Your task to perform on an android device: make emails show in primary in the gmail app Image 0: 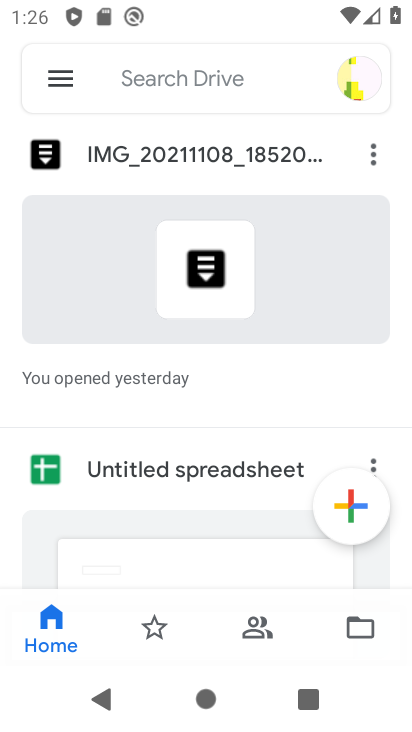
Step 0: press home button
Your task to perform on an android device: make emails show in primary in the gmail app Image 1: 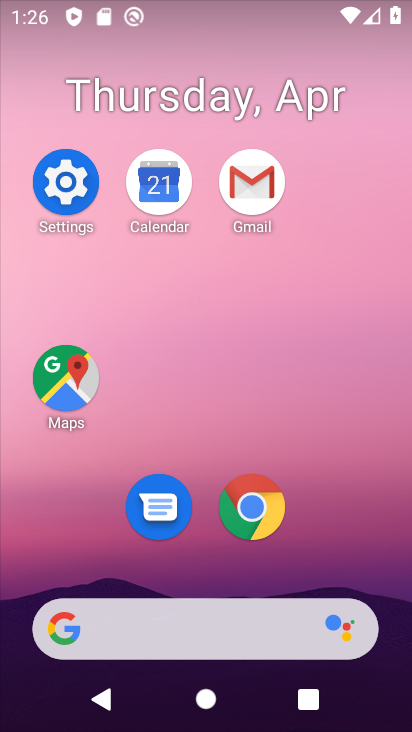
Step 1: click (251, 186)
Your task to perform on an android device: make emails show in primary in the gmail app Image 2: 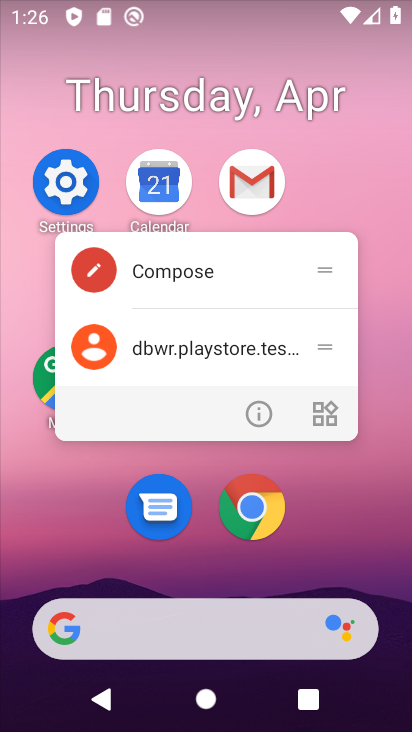
Step 2: click (251, 186)
Your task to perform on an android device: make emails show in primary in the gmail app Image 3: 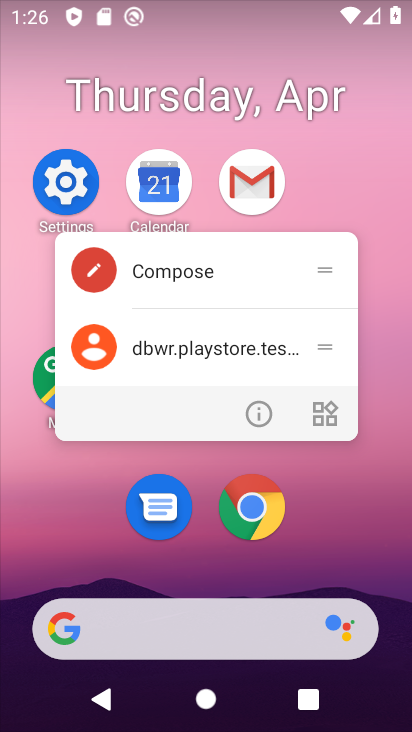
Step 3: click (251, 186)
Your task to perform on an android device: make emails show in primary in the gmail app Image 4: 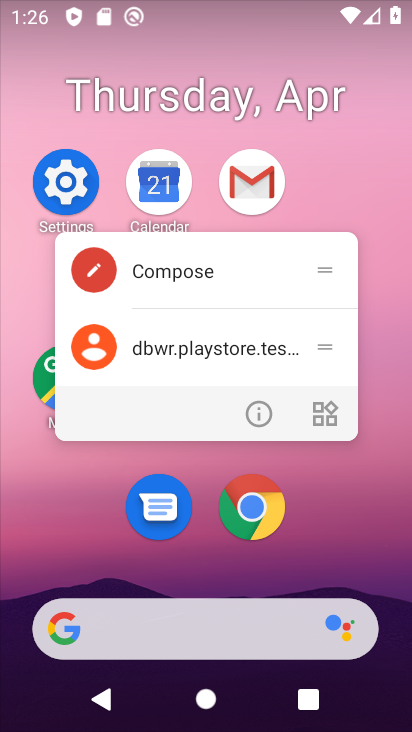
Step 4: click (251, 186)
Your task to perform on an android device: make emails show in primary in the gmail app Image 5: 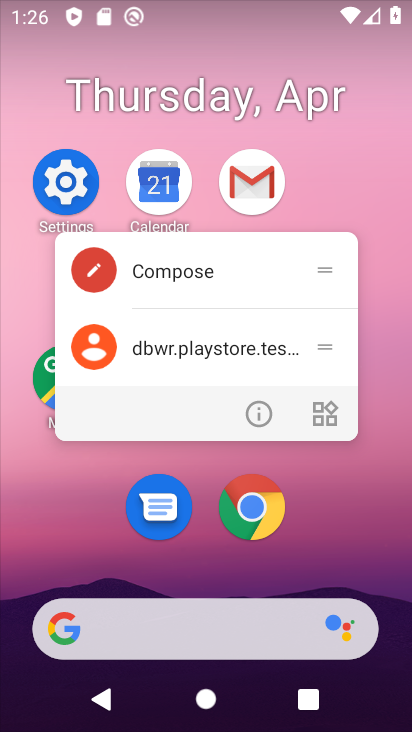
Step 5: click (251, 186)
Your task to perform on an android device: make emails show in primary in the gmail app Image 6: 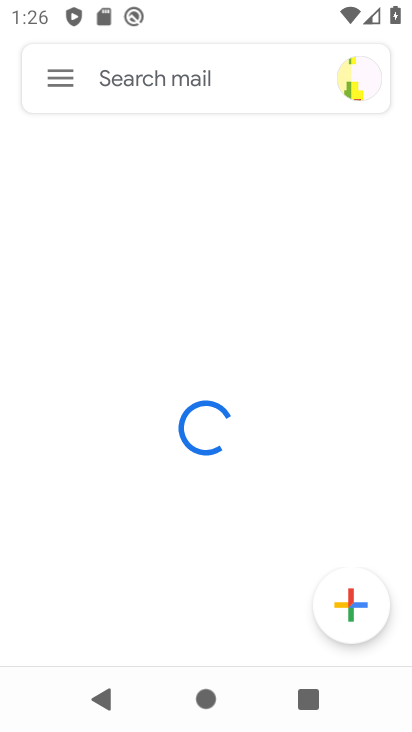
Step 6: click (54, 70)
Your task to perform on an android device: make emails show in primary in the gmail app Image 7: 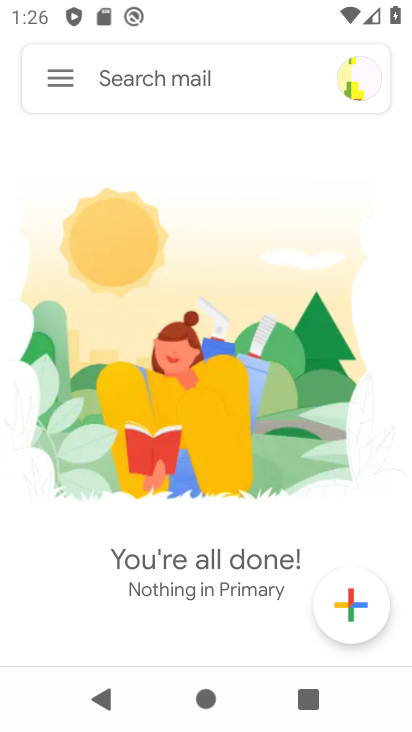
Step 7: click (57, 89)
Your task to perform on an android device: make emails show in primary in the gmail app Image 8: 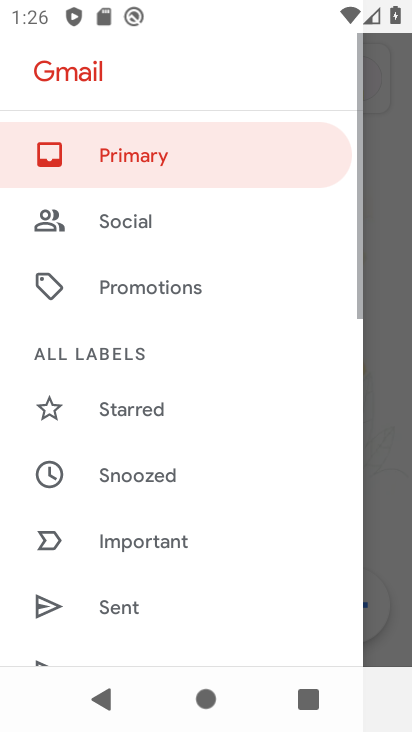
Step 8: drag from (184, 578) to (209, 99)
Your task to perform on an android device: make emails show in primary in the gmail app Image 9: 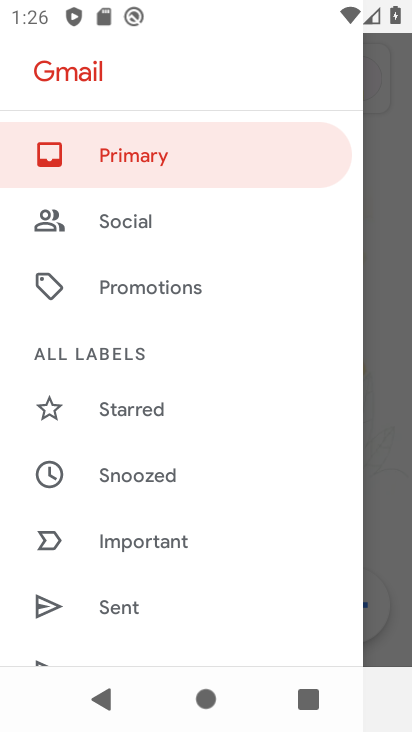
Step 9: drag from (237, 569) to (269, 128)
Your task to perform on an android device: make emails show in primary in the gmail app Image 10: 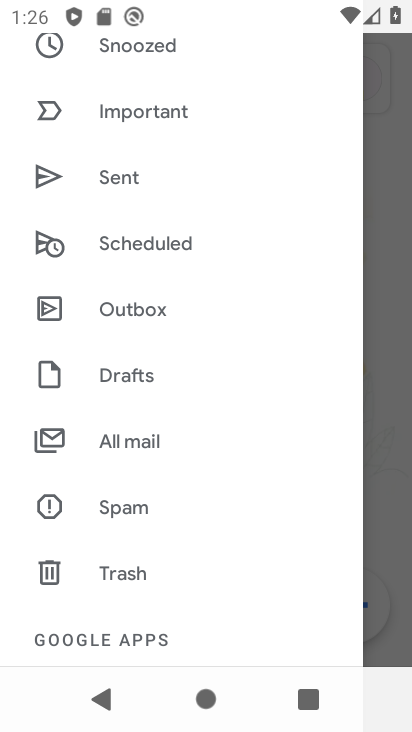
Step 10: drag from (161, 504) to (170, 157)
Your task to perform on an android device: make emails show in primary in the gmail app Image 11: 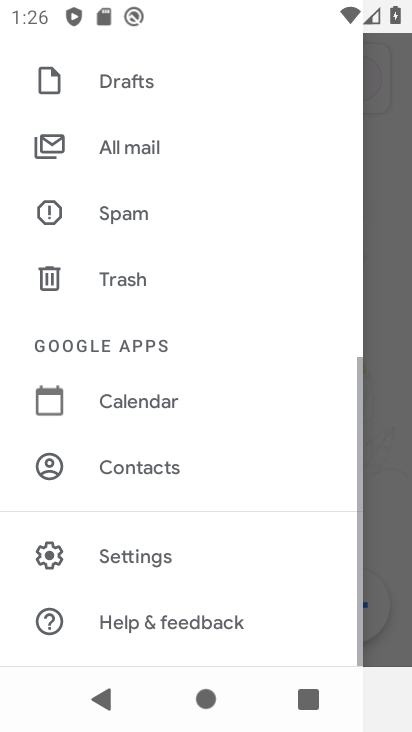
Step 11: click (181, 530)
Your task to perform on an android device: make emails show in primary in the gmail app Image 12: 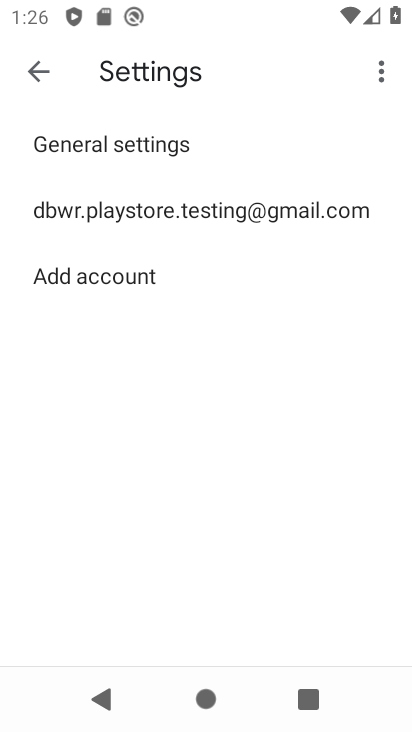
Step 12: click (188, 222)
Your task to perform on an android device: make emails show in primary in the gmail app Image 13: 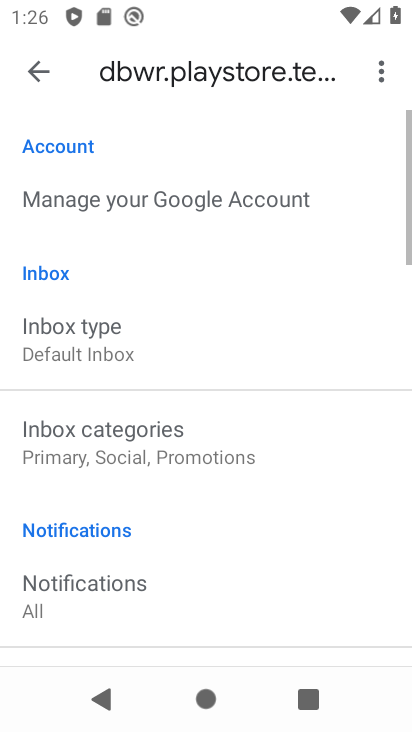
Step 13: click (174, 428)
Your task to perform on an android device: make emails show in primary in the gmail app Image 14: 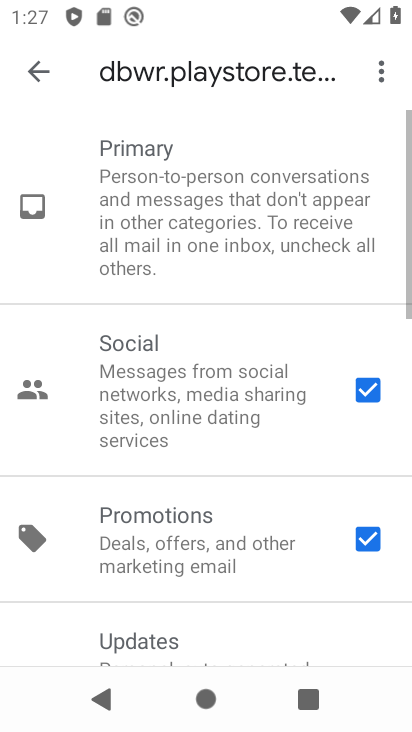
Step 14: click (359, 403)
Your task to perform on an android device: make emails show in primary in the gmail app Image 15: 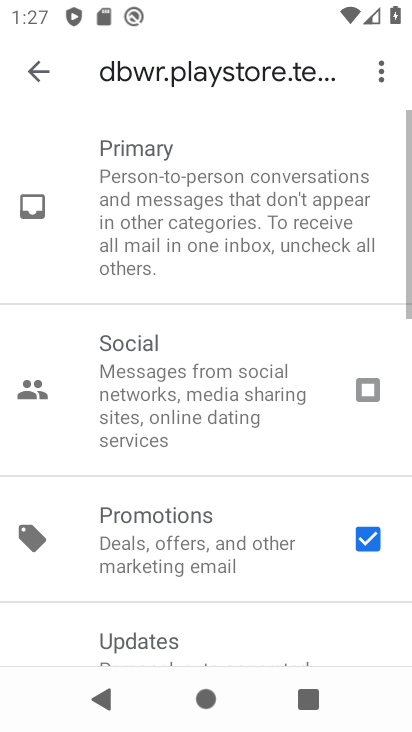
Step 15: click (377, 531)
Your task to perform on an android device: make emails show in primary in the gmail app Image 16: 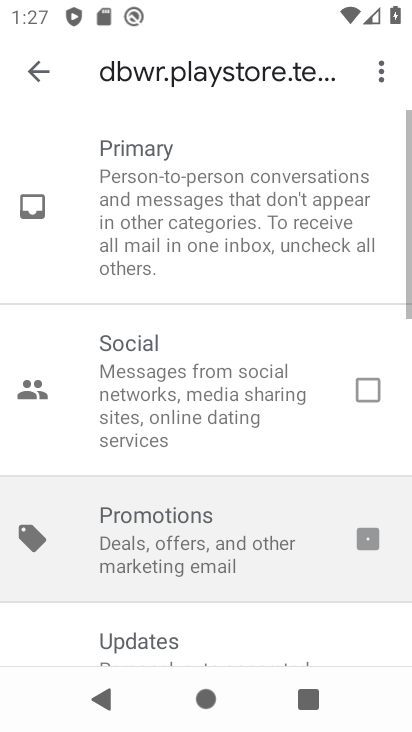
Step 16: drag from (228, 525) to (222, 34)
Your task to perform on an android device: make emails show in primary in the gmail app Image 17: 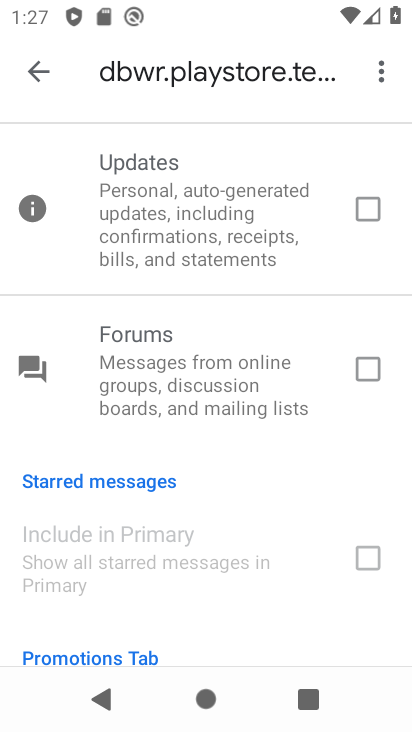
Step 17: drag from (322, 519) to (291, 102)
Your task to perform on an android device: make emails show in primary in the gmail app Image 18: 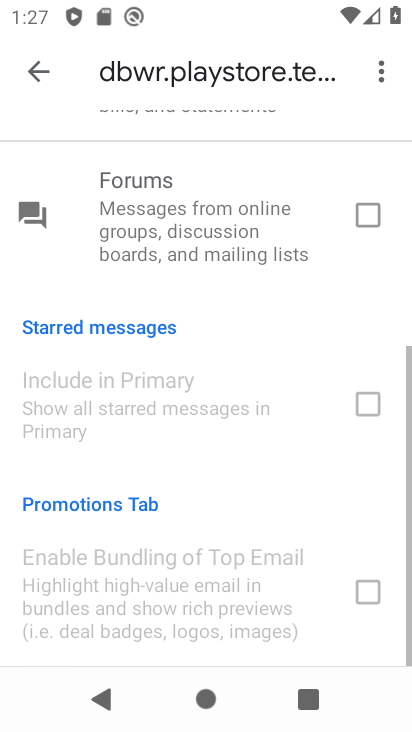
Step 18: click (120, 717)
Your task to perform on an android device: make emails show in primary in the gmail app Image 19: 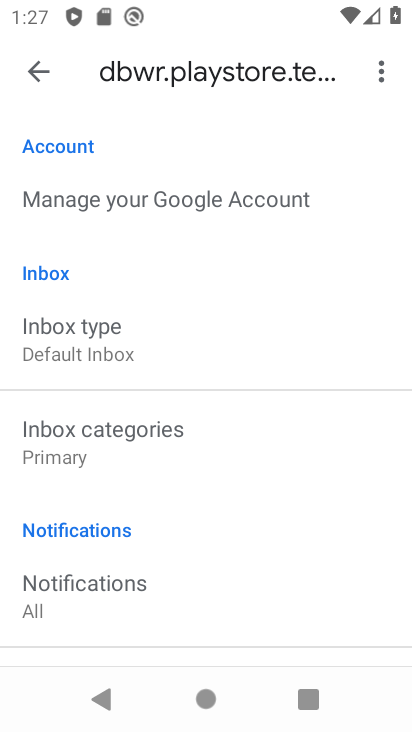
Step 19: task complete